Your task to perform on an android device: Check the news Image 0: 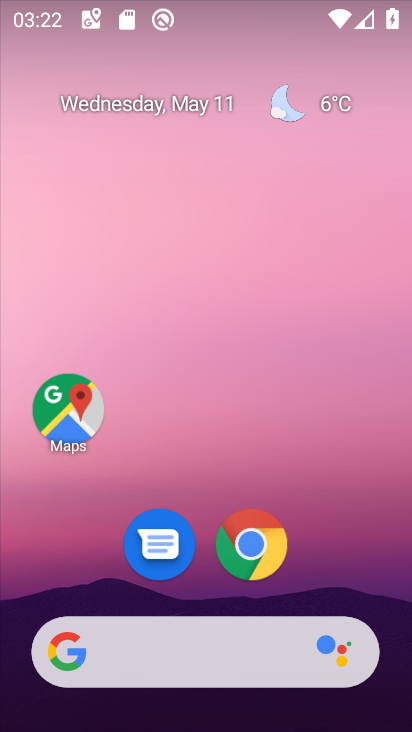
Step 0: drag from (308, 593) to (306, 137)
Your task to perform on an android device: Check the news Image 1: 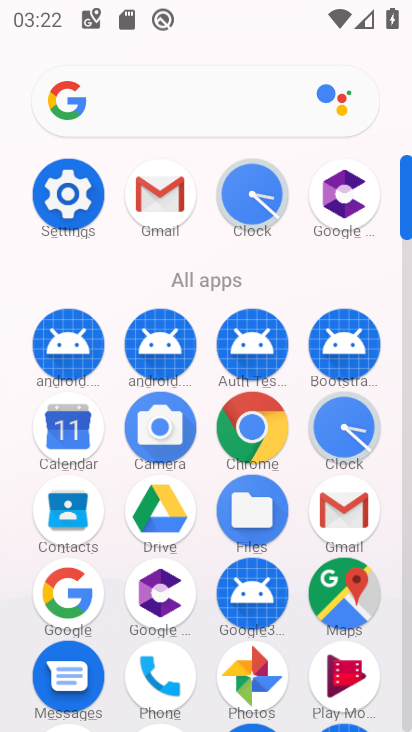
Step 1: click (165, 113)
Your task to perform on an android device: Check the news Image 2: 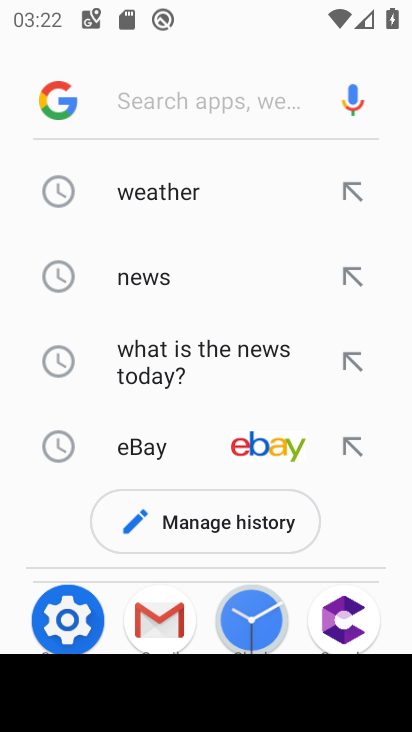
Step 2: type "news"
Your task to perform on an android device: Check the news Image 3: 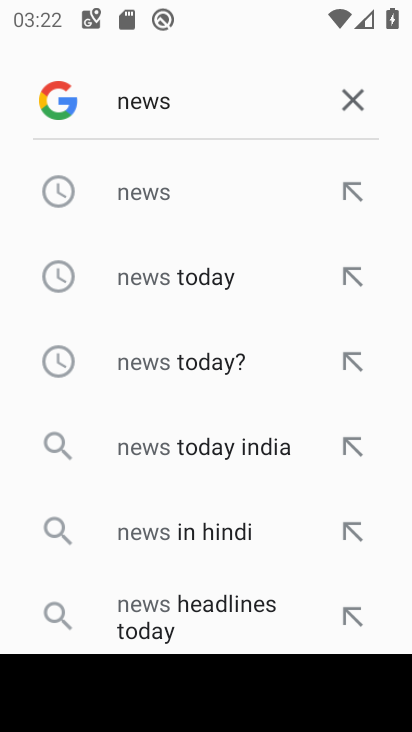
Step 3: click (138, 178)
Your task to perform on an android device: Check the news Image 4: 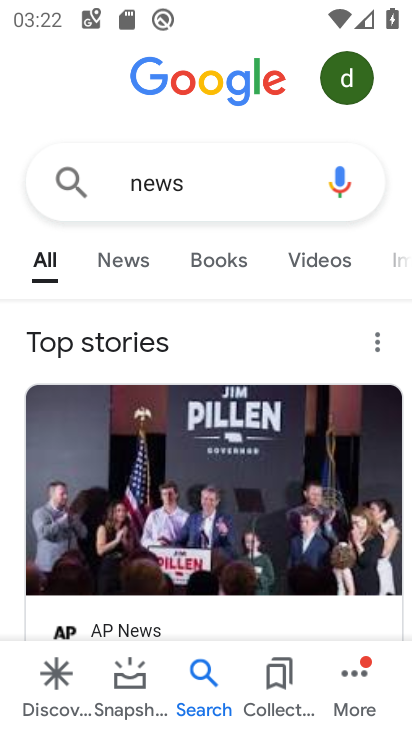
Step 4: click (131, 249)
Your task to perform on an android device: Check the news Image 5: 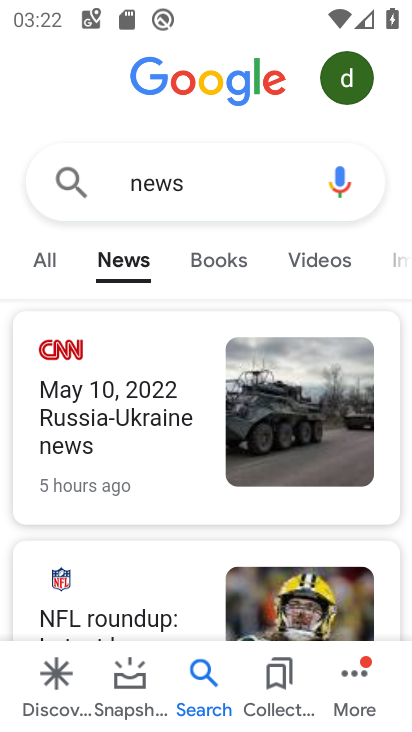
Step 5: task complete